Your task to perform on an android device: What's on my calendar today? Image 0: 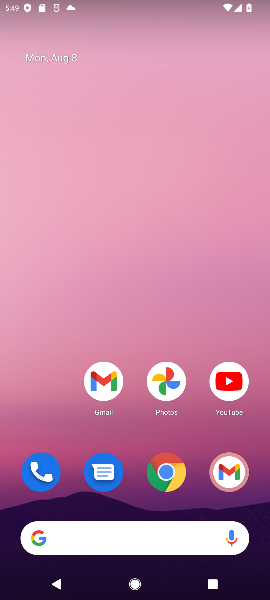
Step 0: press home button
Your task to perform on an android device: What's on my calendar today? Image 1: 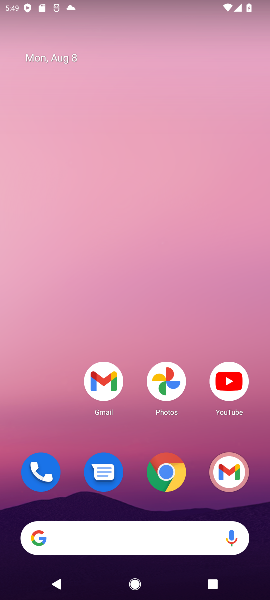
Step 1: drag from (144, 516) to (158, 85)
Your task to perform on an android device: What's on my calendar today? Image 2: 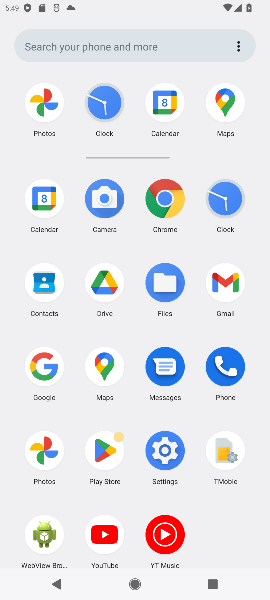
Step 2: click (47, 203)
Your task to perform on an android device: What's on my calendar today? Image 3: 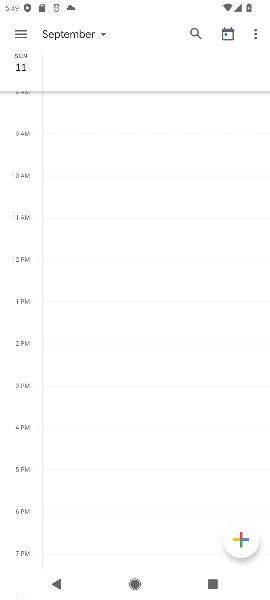
Step 3: click (103, 27)
Your task to perform on an android device: What's on my calendar today? Image 4: 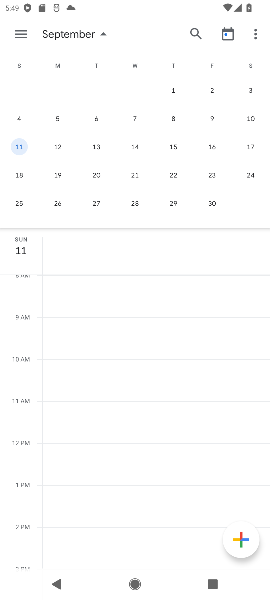
Step 4: drag from (117, 164) to (265, 140)
Your task to perform on an android device: What's on my calendar today? Image 5: 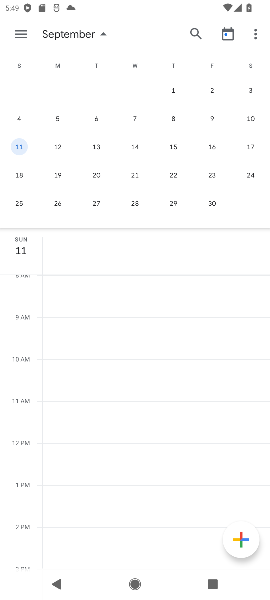
Step 5: drag from (53, 154) to (269, 160)
Your task to perform on an android device: What's on my calendar today? Image 6: 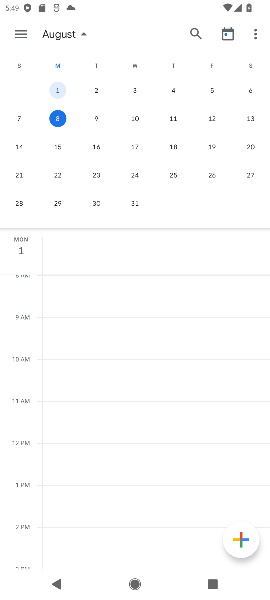
Step 6: click (60, 121)
Your task to perform on an android device: What's on my calendar today? Image 7: 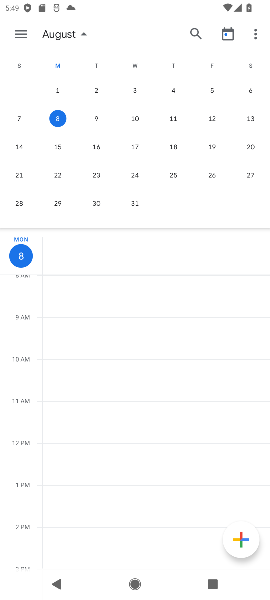
Step 7: task complete